Your task to perform on an android device: uninstall "PUBG MOBILE" Image 0: 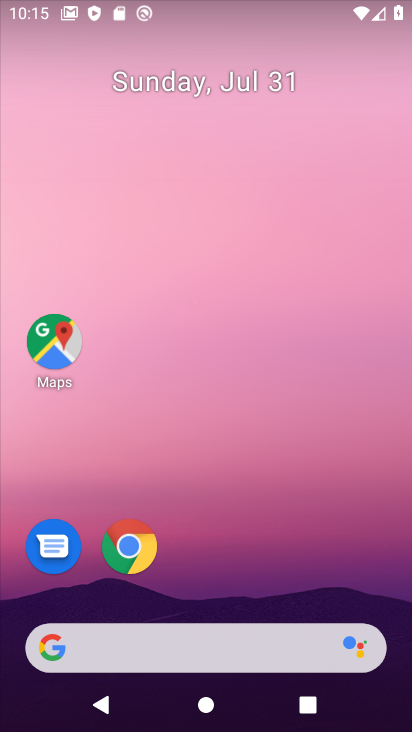
Step 0: drag from (236, 646) to (259, 77)
Your task to perform on an android device: uninstall "PUBG MOBILE" Image 1: 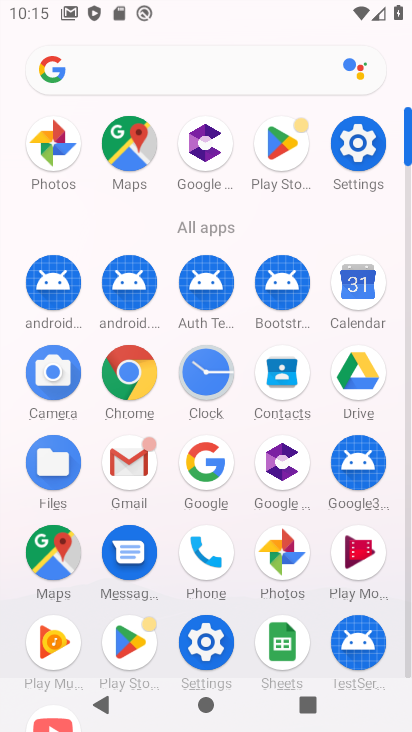
Step 1: click (287, 163)
Your task to perform on an android device: uninstall "PUBG MOBILE" Image 2: 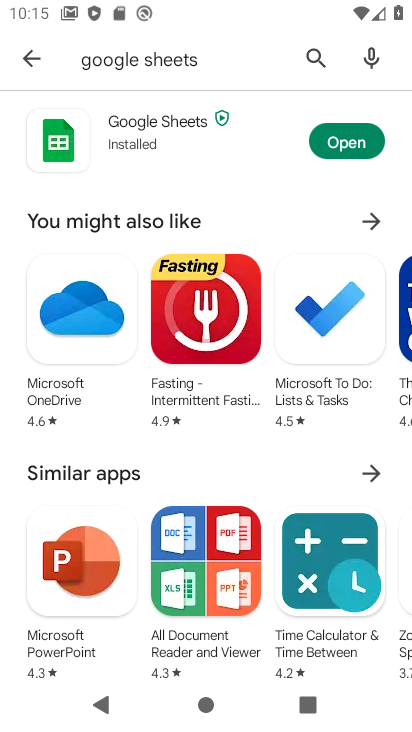
Step 2: click (315, 46)
Your task to perform on an android device: uninstall "PUBG MOBILE" Image 3: 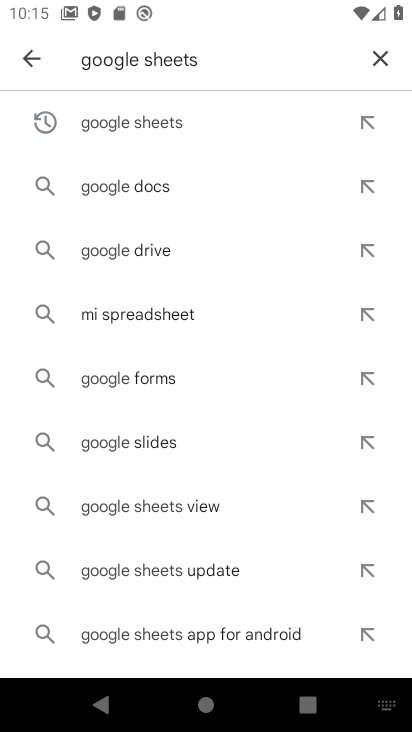
Step 3: click (384, 57)
Your task to perform on an android device: uninstall "PUBG MOBILE" Image 4: 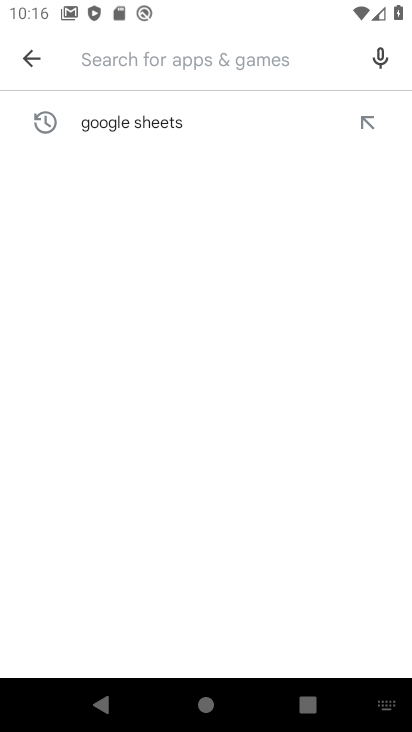
Step 4: type "pubg mobile"
Your task to perform on an android device: uninstall "PUBG MOBILE" Image 5: 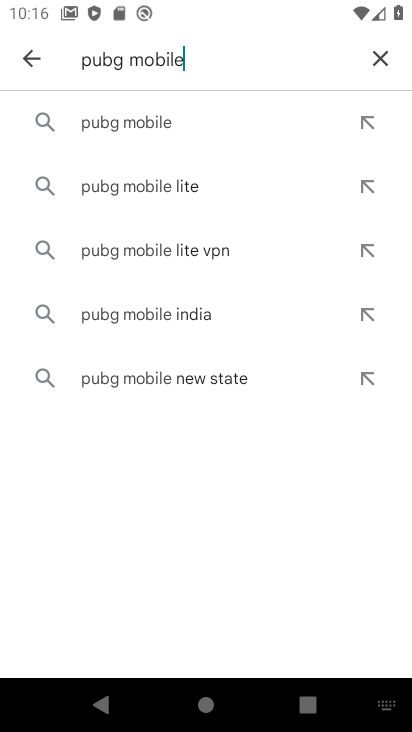
Step 5: click (158, 120)
Your task to perform on an android device: uninstall "PUBG MOBILE" Image 6: 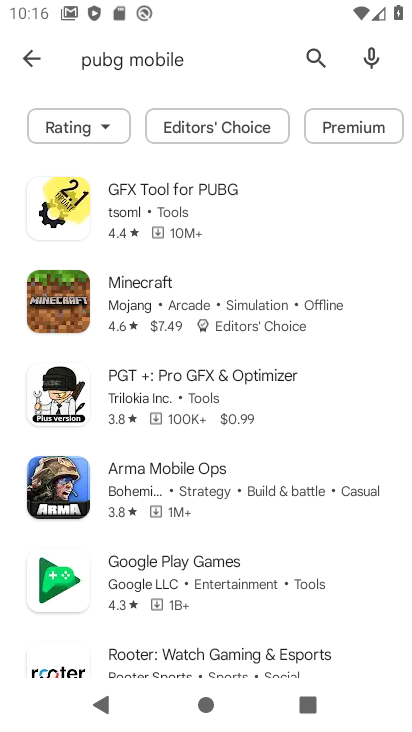
Step 6: task complete